Your task to perform on an android device: check out phone information Image 0: 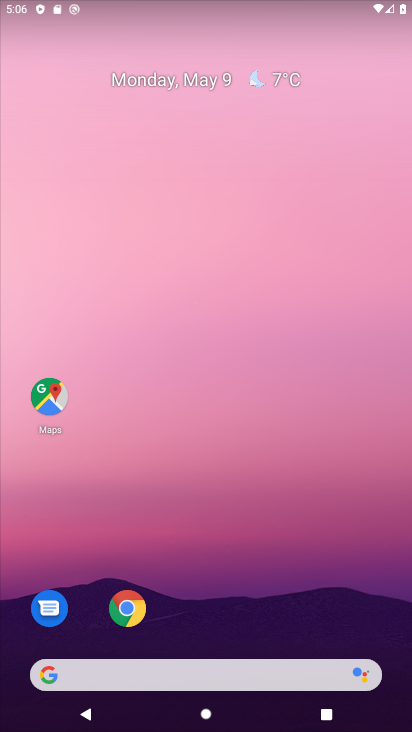
Step 0: drag from (205, 621) to (217, 10)
Your task to perform on an android device: check out phone information Image 1: 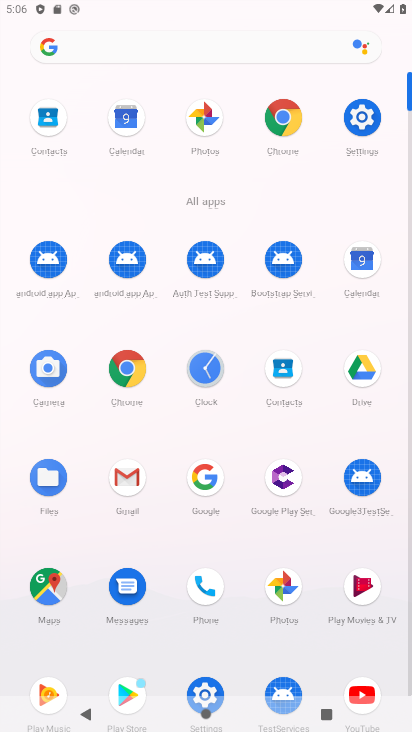
Step 1: click (363, 125)
Your task to perform on an android device: check out phone information Image 2: 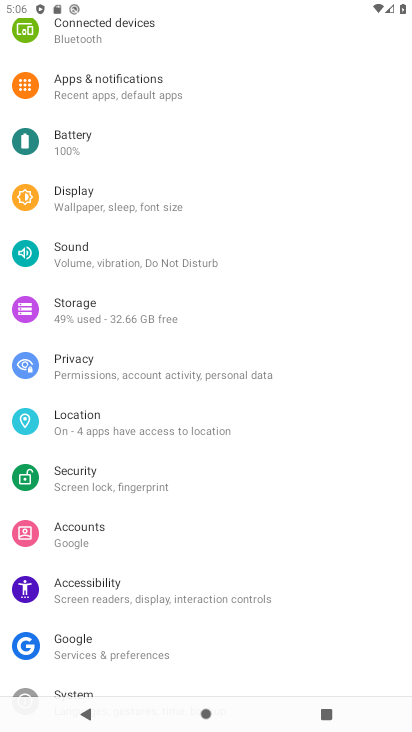
Step 2: drag from (143, 664) to (215, 182)
Your task to perform on an android device: check out phone information Image 3: 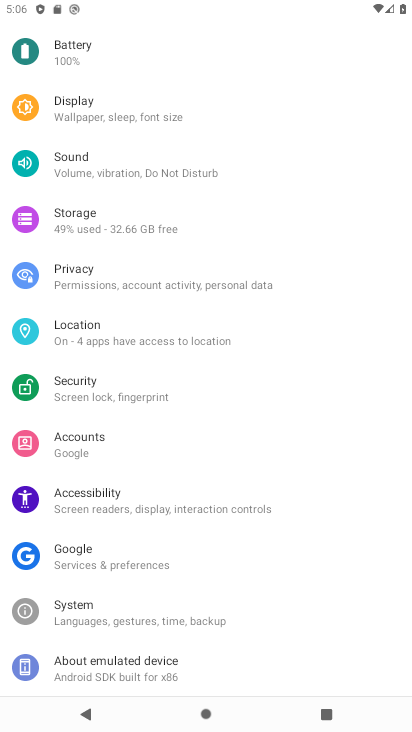
Step 3: click (101, 681)
Your task to perform on an android device: check out phone information Image 4: 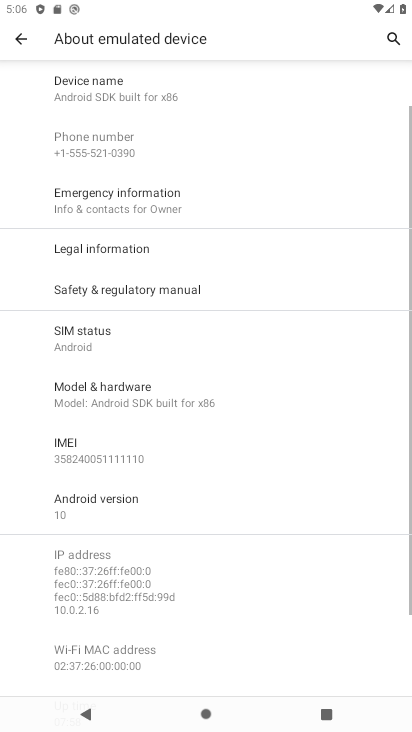
Step 4: task complete